Your task to perform on an android device: Set the phone to "Do not disturb". Image 0: 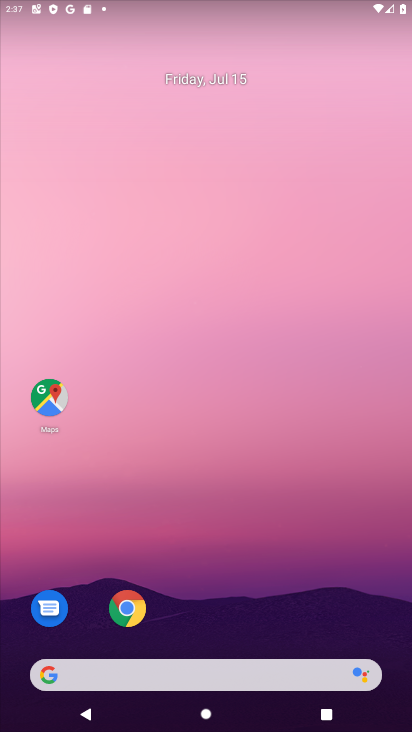
Step 0: drag from (251, 606) to (348, 101)
Your task to perform on an android device: Set the phone to "Do not disturb". Image 1: 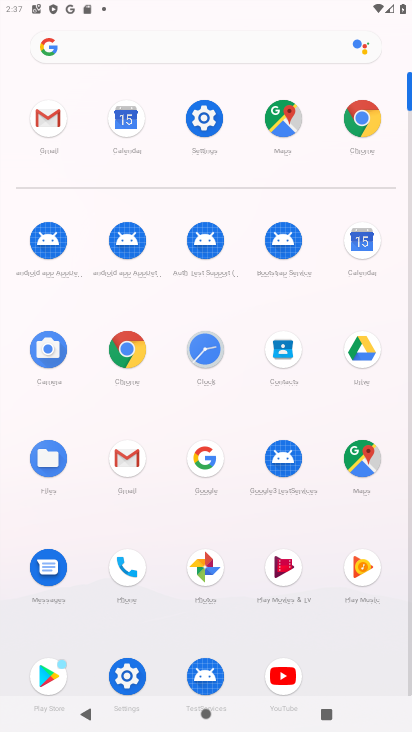
Step 1: click (225, 112)
Your task to perform on an android device: Set the phone to "Do not disturb". Image 2: 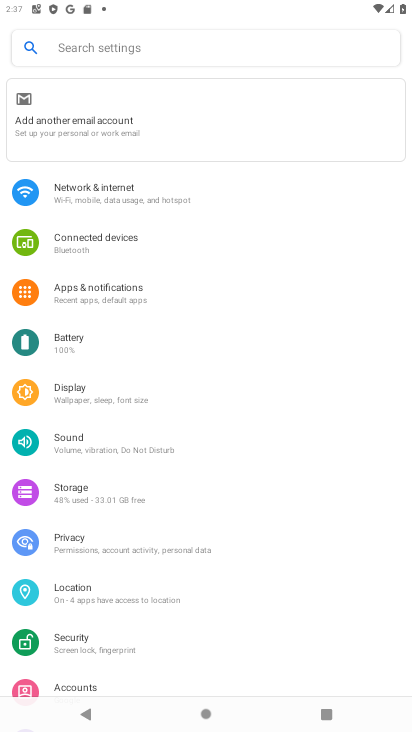
Step 2: click (167, 446)
Your task to perform on an android device: Set the phone to "Do not disturb". Image 3: 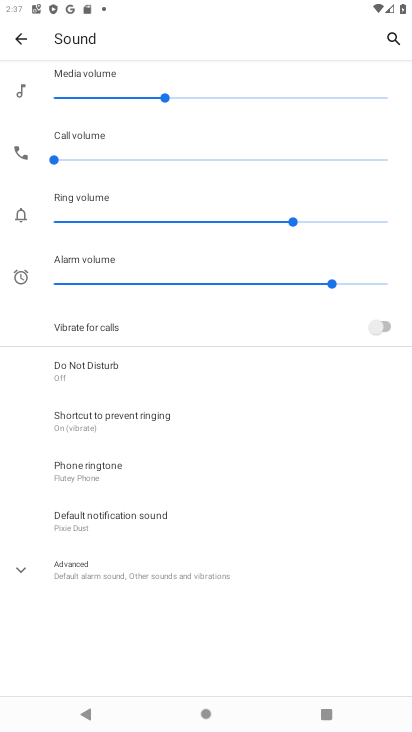
Step 3: click (191, 358)
Your task to perform on an android device: Set the phone to "Do not disturb". Image 4: 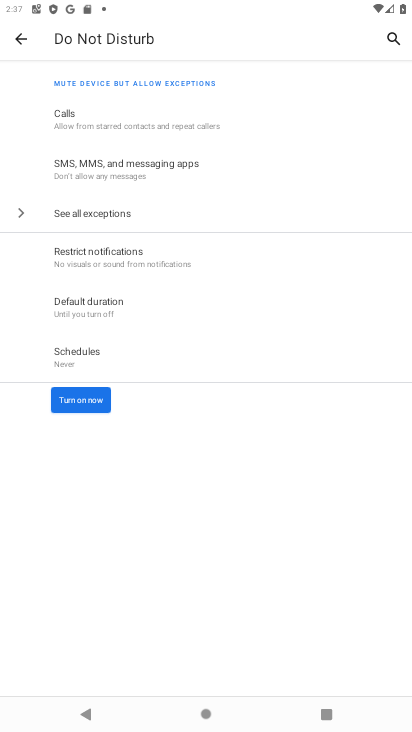
Step 4: click (67, 407)
Your task to perform on an android device: Set the phone to "Do not disturb". Image 5: 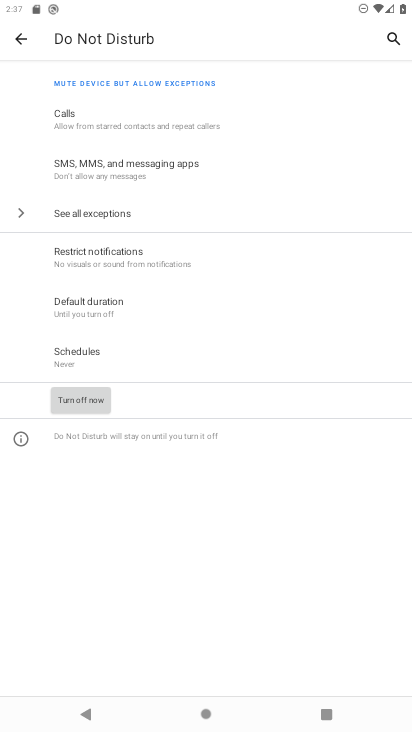
Step 5: task complete